Your task to perform on an android device: Open CNN.com Image 0: 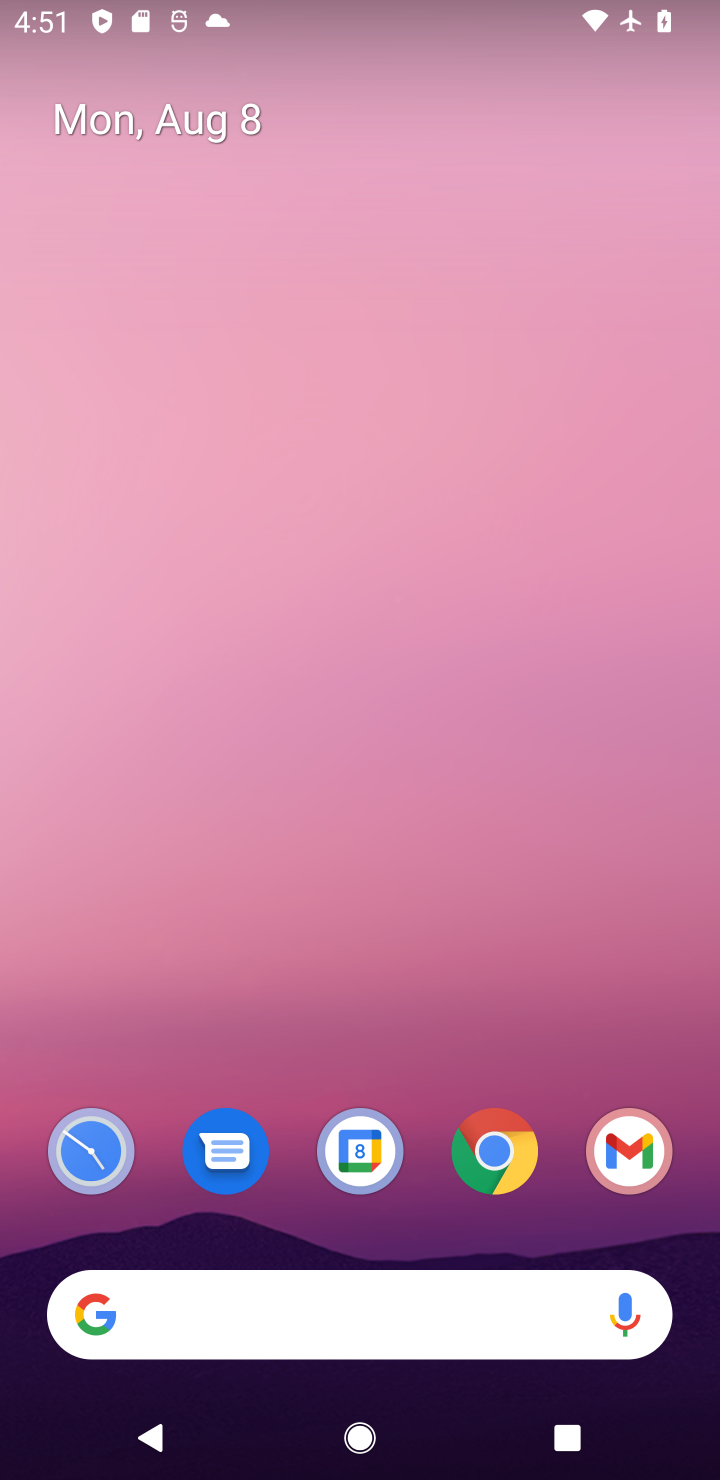
Step 0: click (469, 1164)
Your task to perform on an android device: Open CNN.com Image 1: 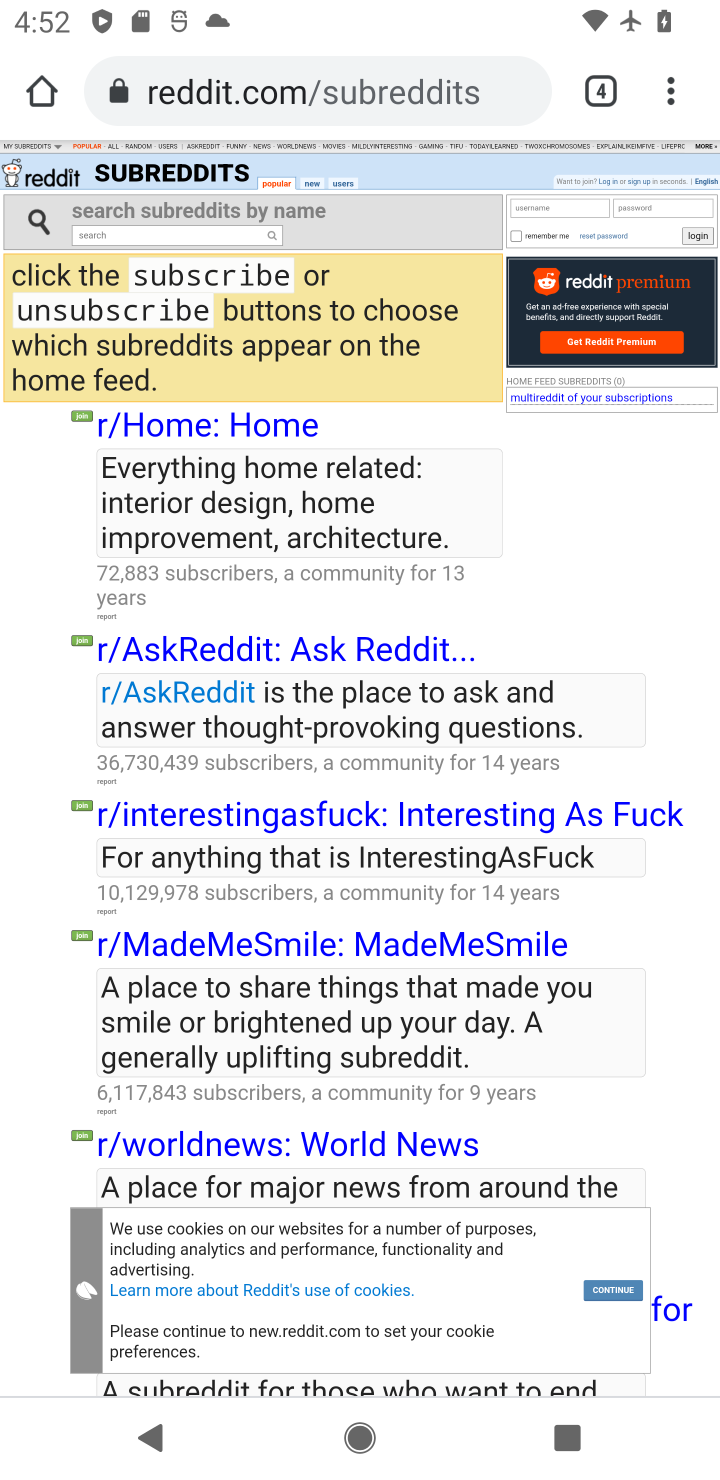
Step 1: click (590, 89)
Your task to perform on an android device: Open CNN.com Image 2: 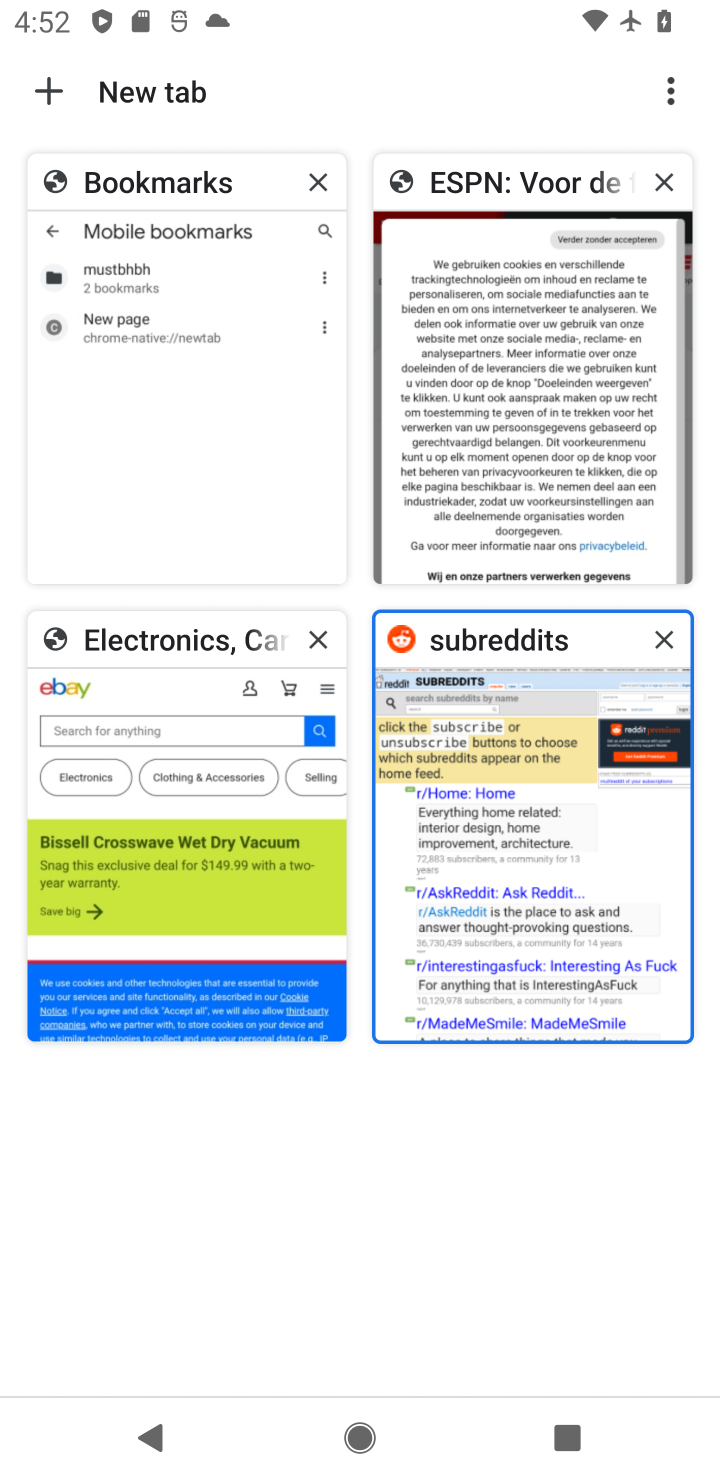
Step 2: click (39, 80)
Your task to perform on an android device: Open CNN.com Image 3: 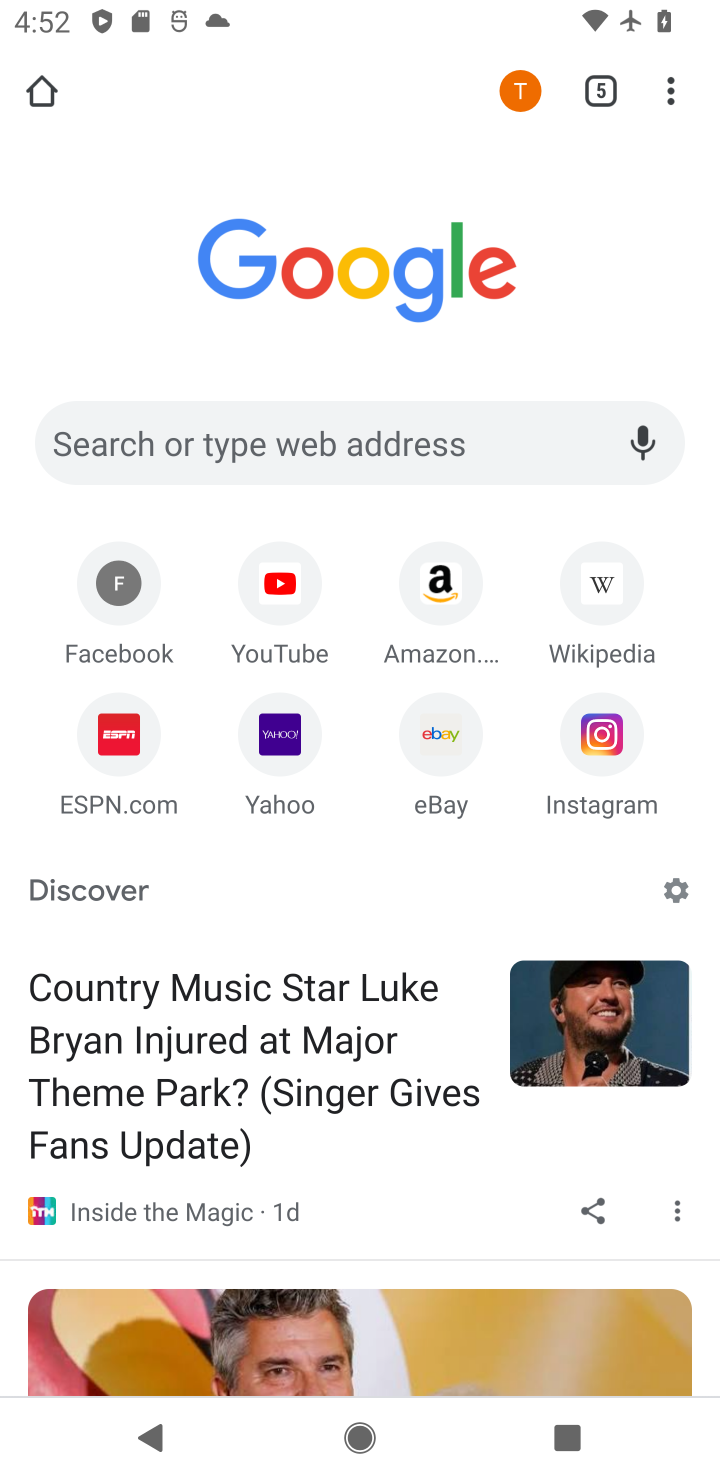
Step 3: click (311, 446)
Your task to perform on an android device: Open CNN.com Image 4: 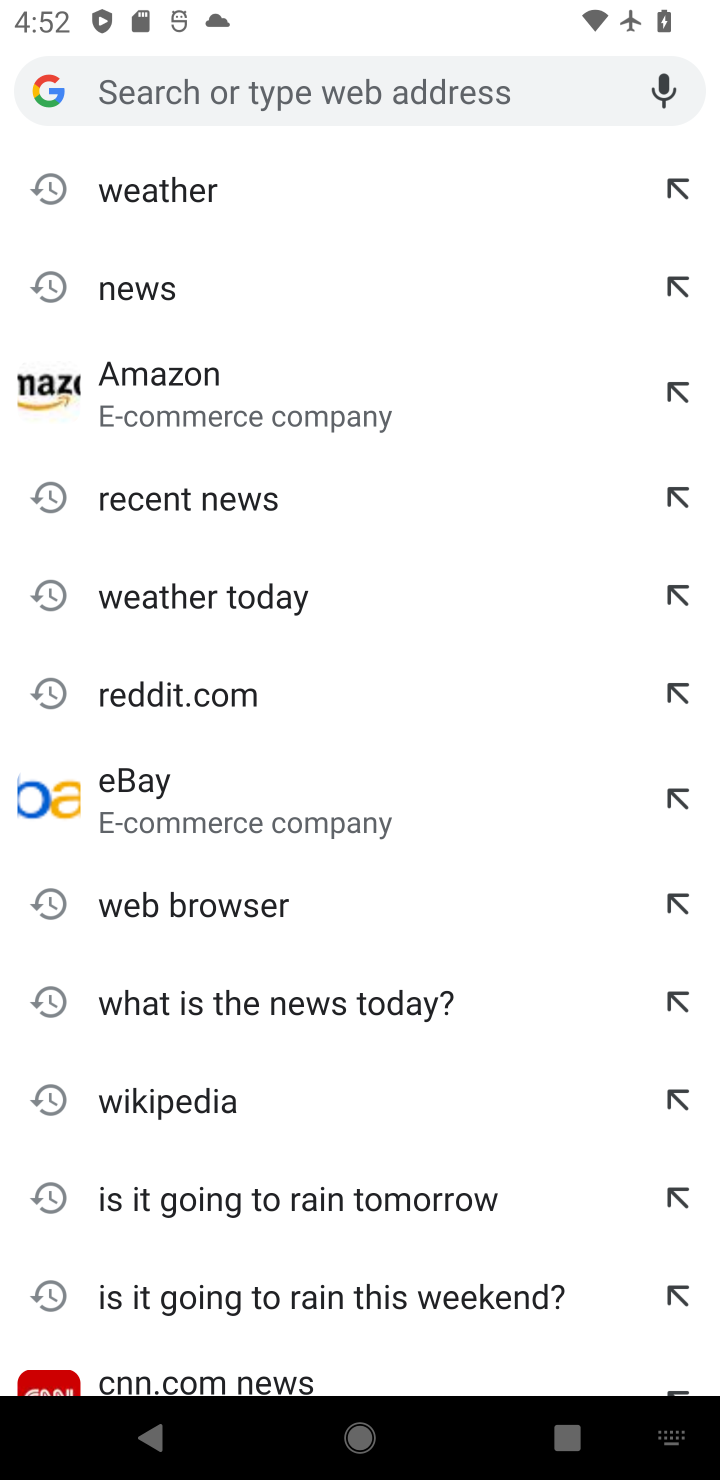
Step 4: type "CNN.com"
Your task to perform on an android device: Open CNN.com Image 5: 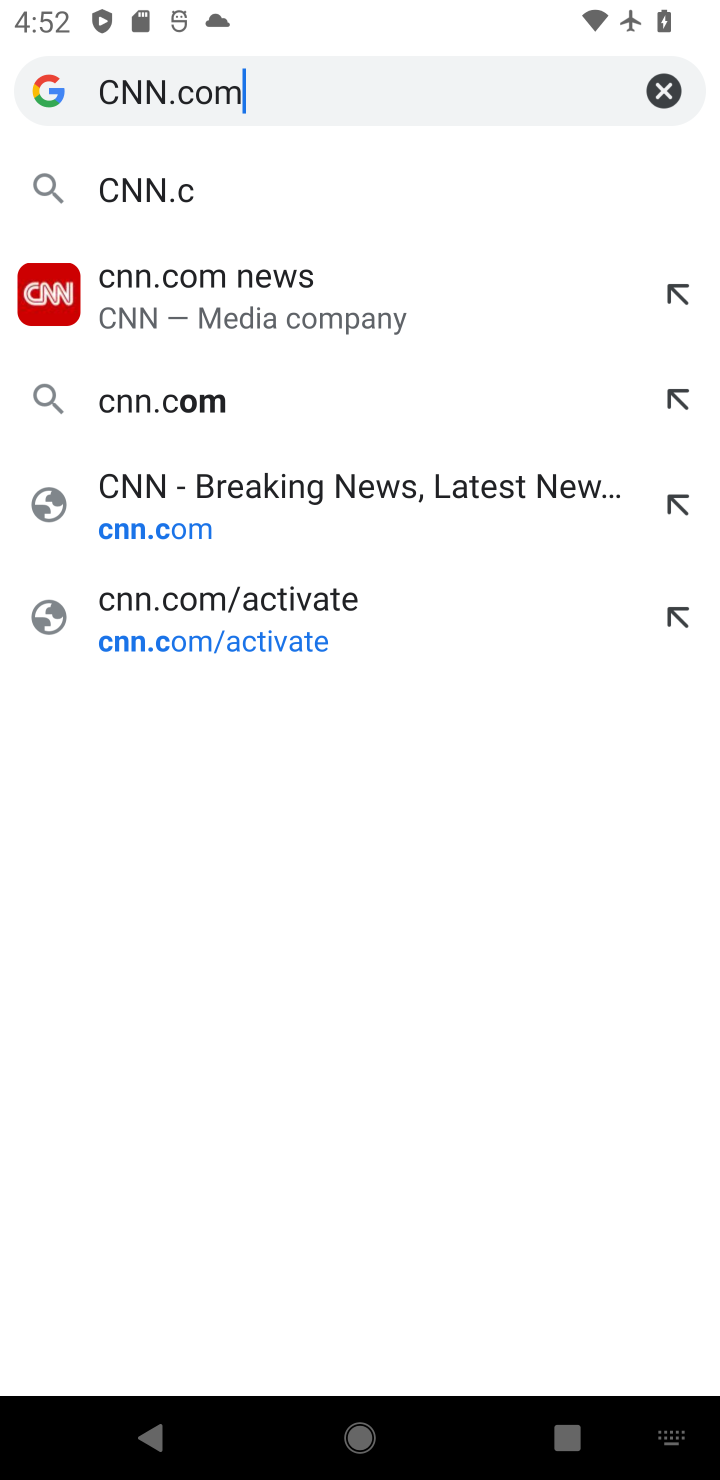
Step 5: type ""
Your task to perform on an android device: Open CNN.com Image 6: 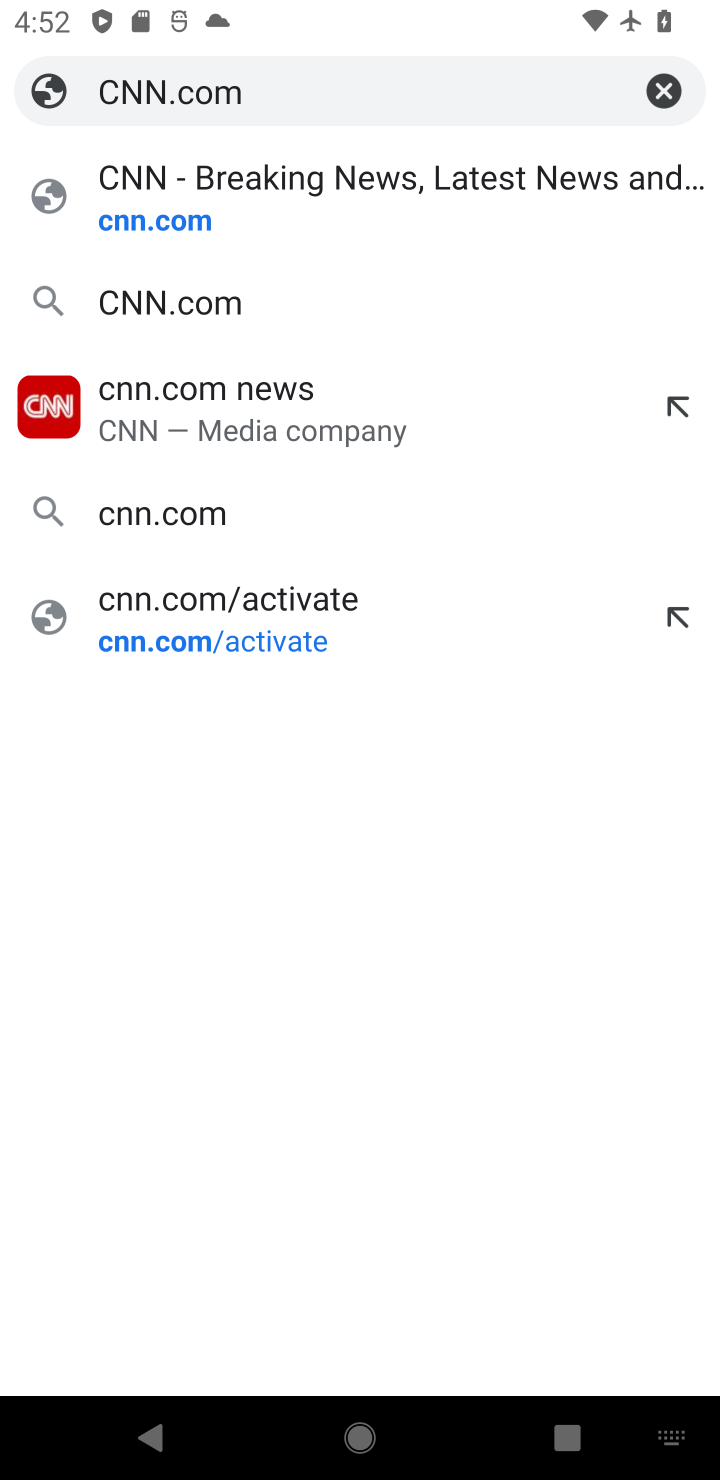
Step 6: click (359, 209)
Your task to perform on an android device: Open CNN.com Image 7: 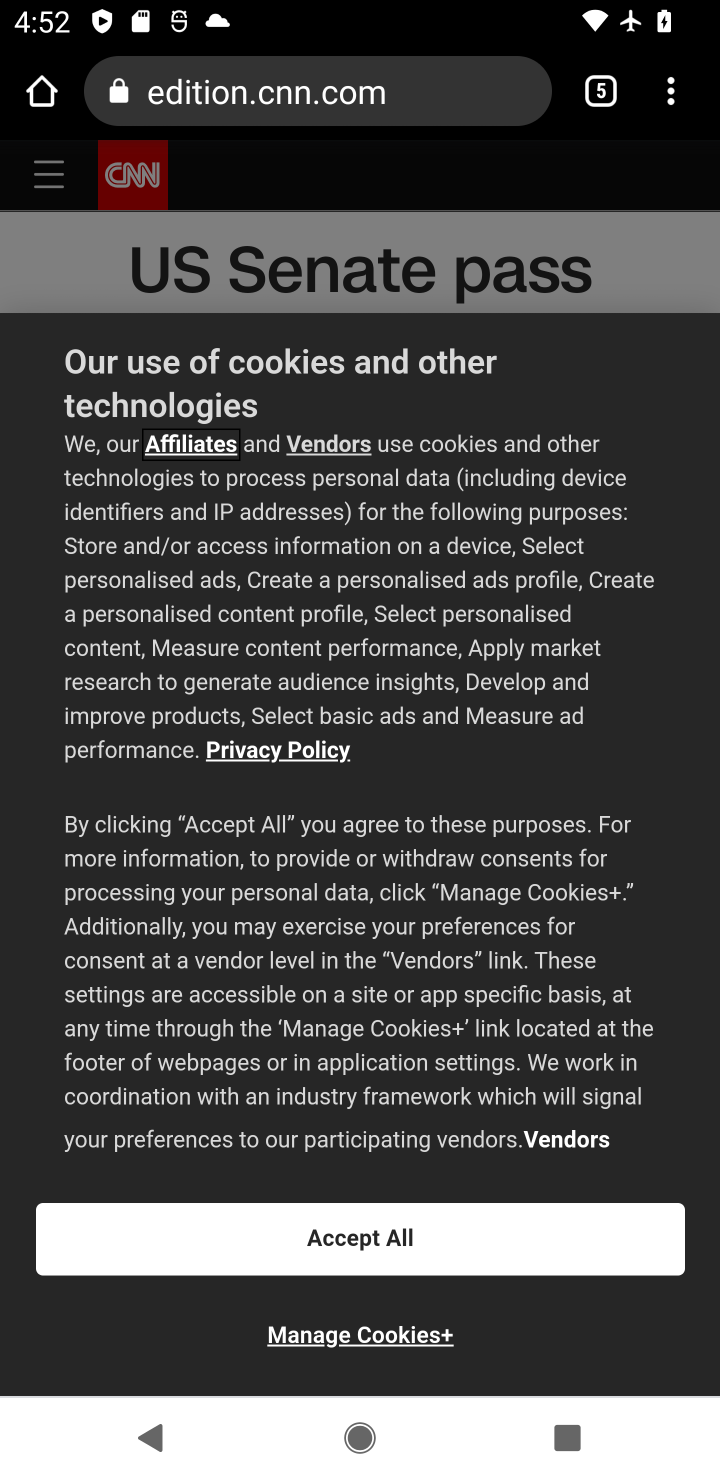
Step 7: task complete